Your task to perform on an android device: open app "Booking.com: Hotels and more" (install if not already installed), go to login, and select forgot password Image 0: 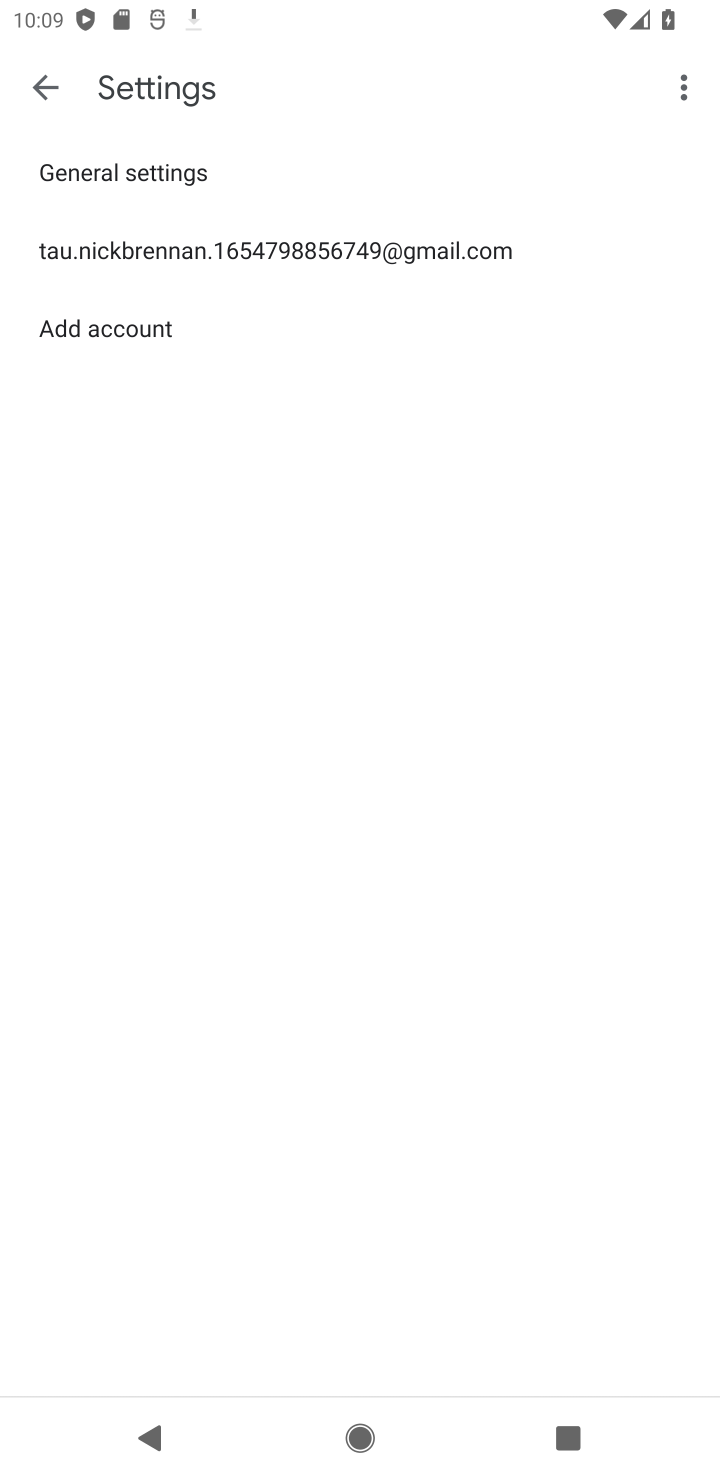
Step 0: press home button
Your task to perform on an android device: open app "Booking.com: Hotels and more" (install if not already installed), go to login, and select forgot password Image 1: 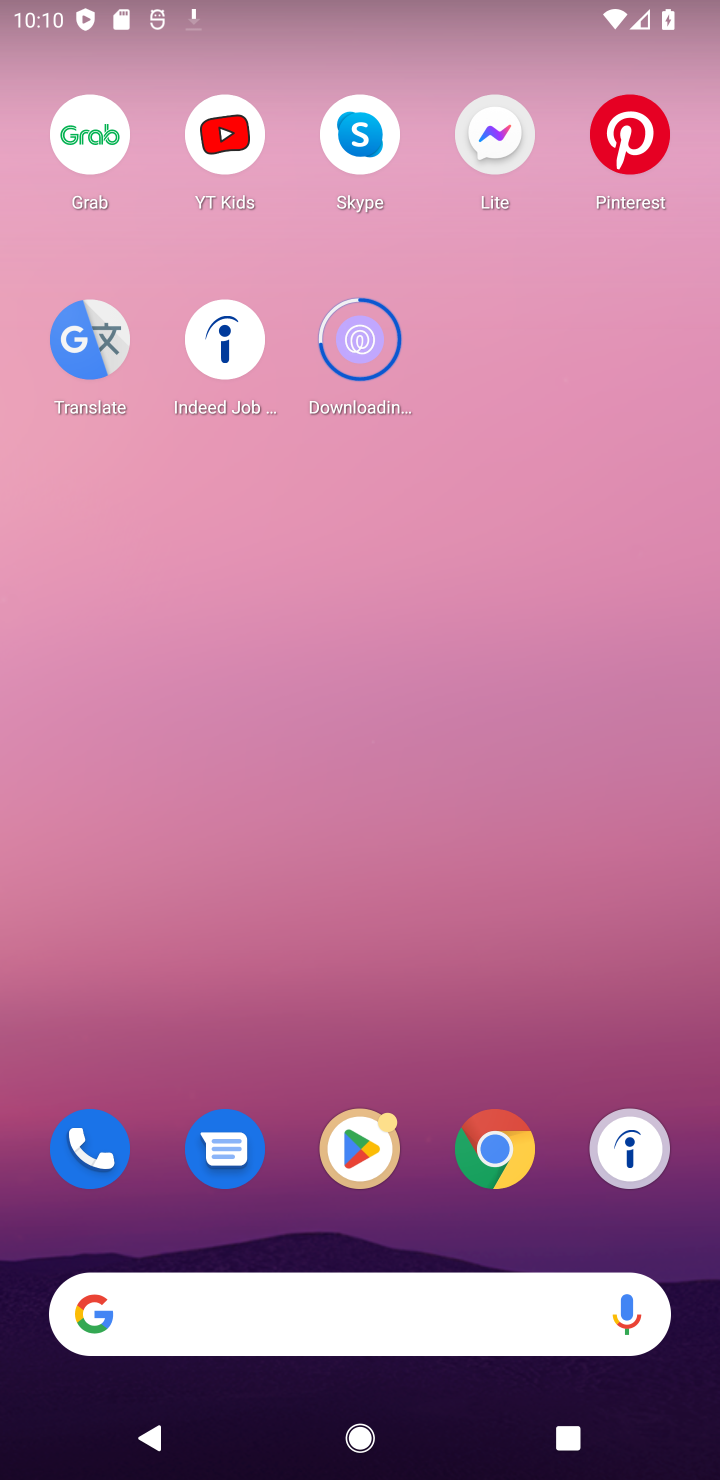
Step 1: click (365, 1166)
Your task to perform on an android device: open app "Booking.com: Hotels and more" (install if not already installed), go to login, and select forgot password Image 2: 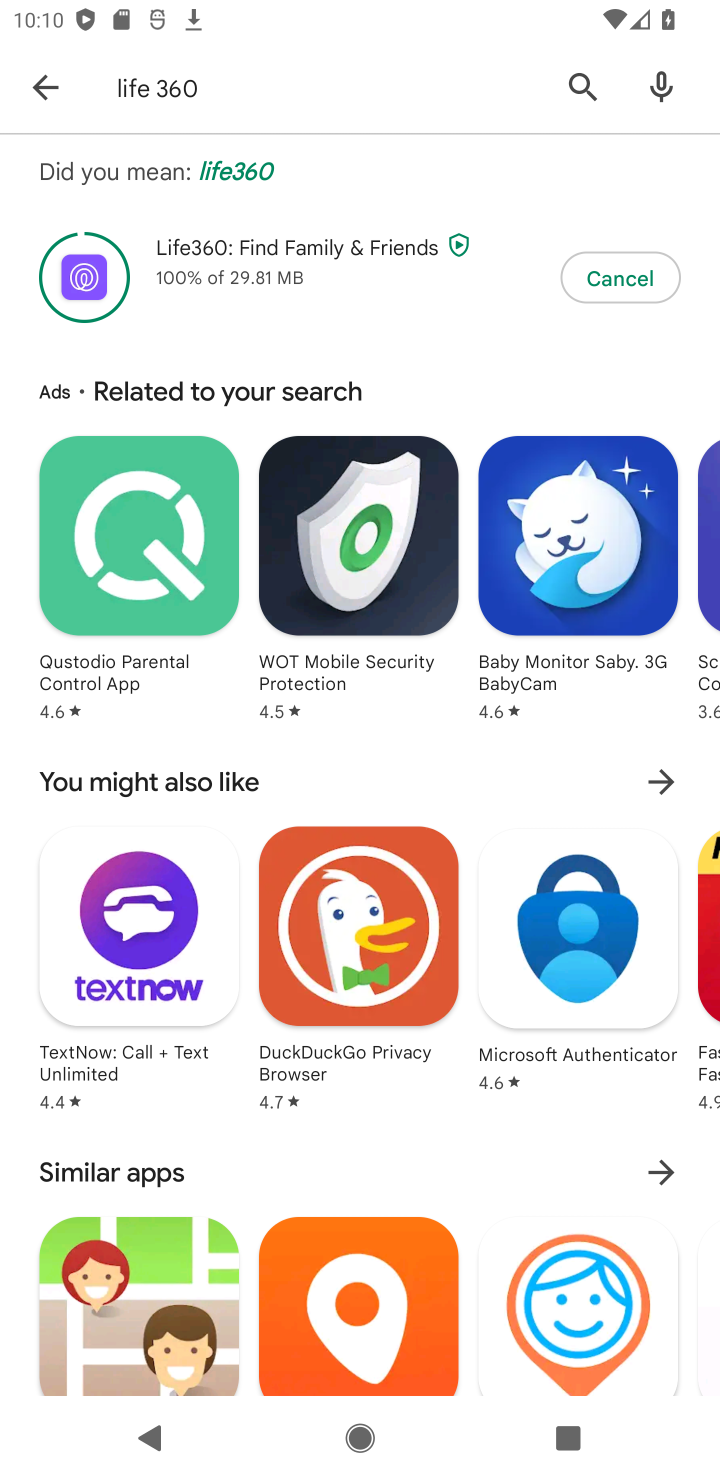
Step 2: click (566, 86)
Your task to perform on an android device: open app "Booking.com: Hotels and more" (install if not already installed), go to login, and select forgot password Image 3: 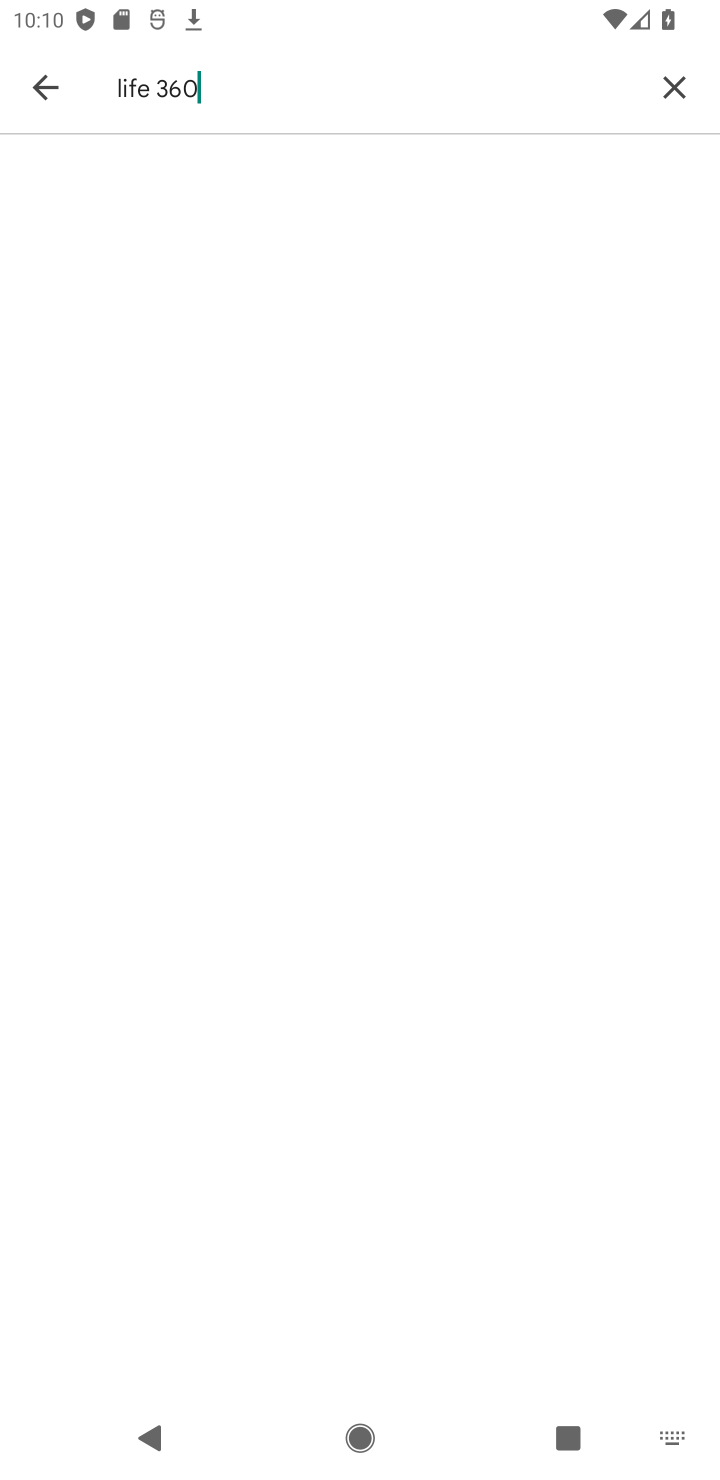
Step 3: click (664, 90)
Your task to perform on an android device: open app "Booking.com: Hotels and more" (install if not already installed), go to login, and select forgot password Image 4: 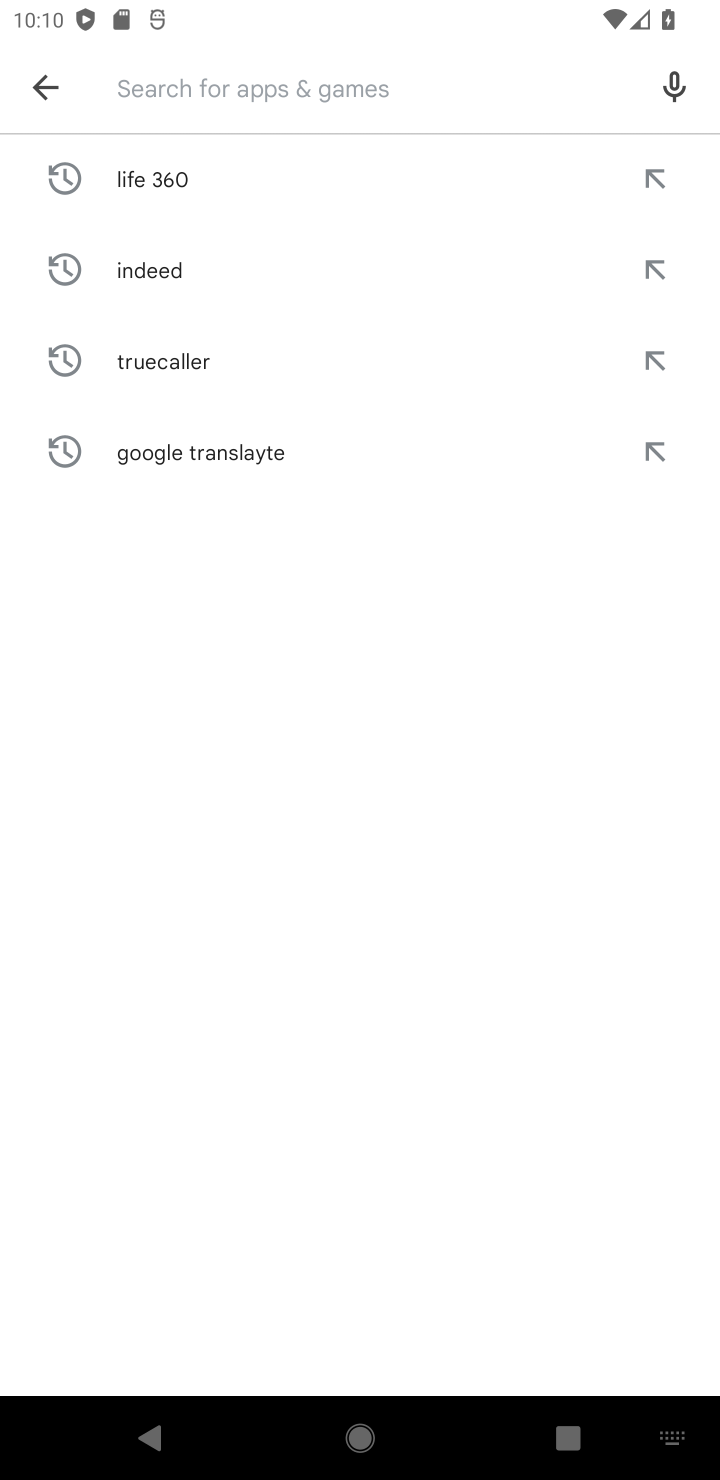
Step 4: click (664, 90)
Your task to perform on an android device: open app "Booking.com: Hotels and more" (install if not already installed), go to login, and select forgot password Image 5: 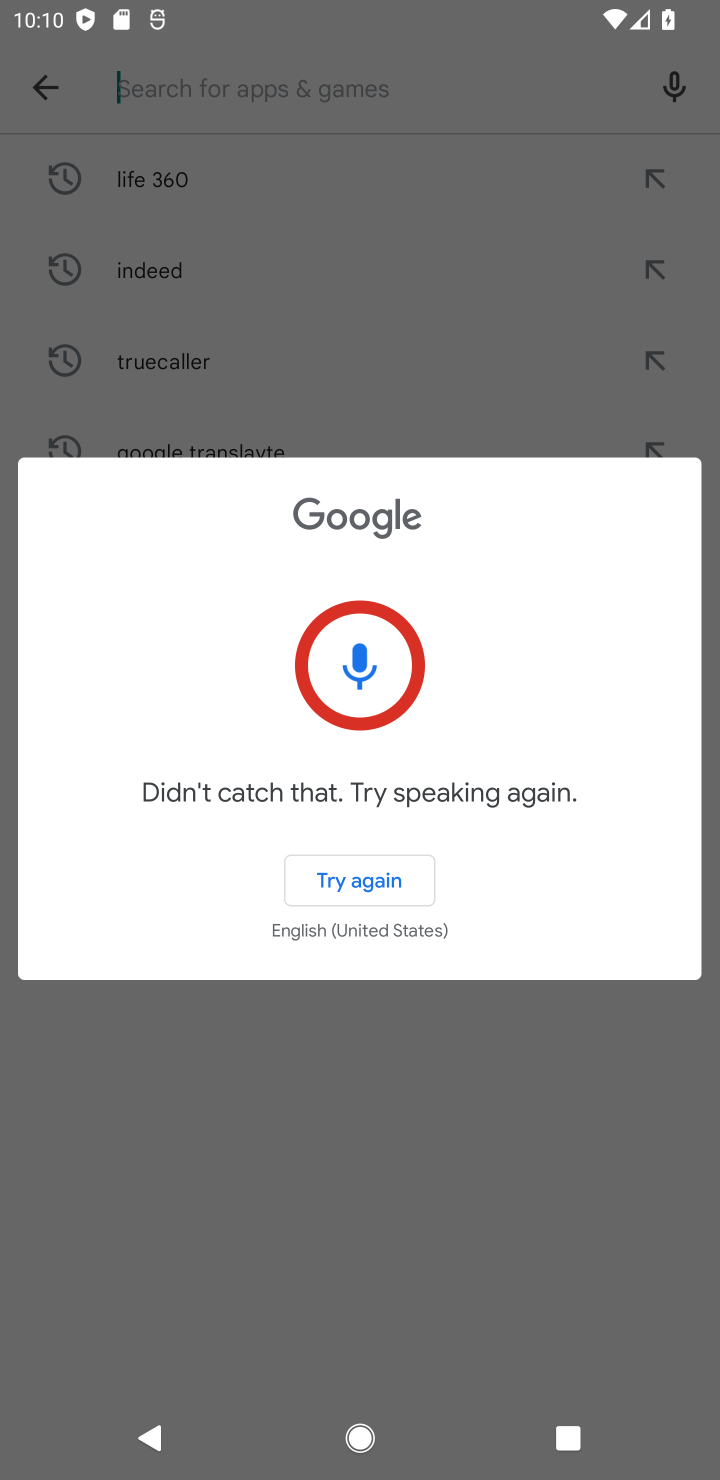
Step 5: type "booking"
Your task to perform on an android device: open app "Booking.com: Hotels and more" (install if not already installed), go to login, and select forgot password Image 6: 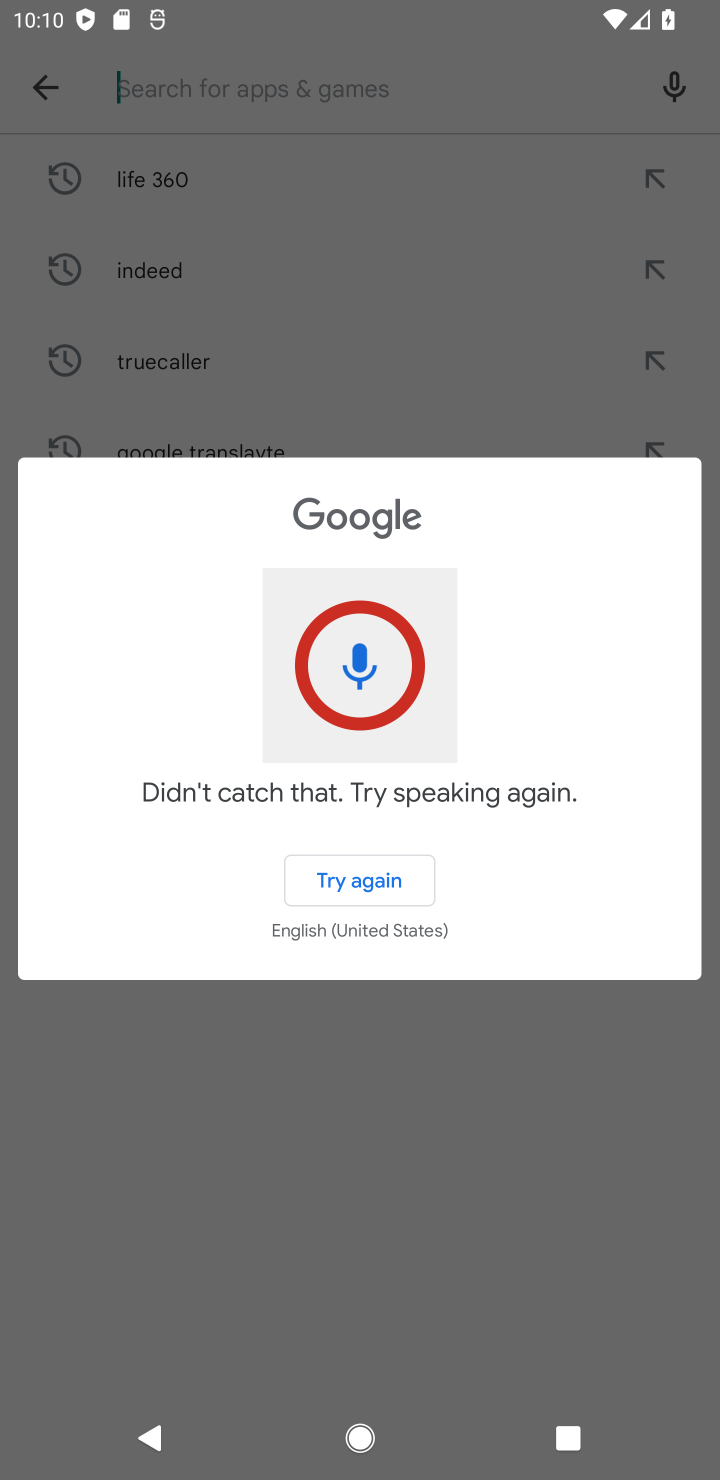
Step 6: click (345, 225)
Your task to perform on an android device: open app "Booking.com: Hotels and more" (install if not already installed), go to login, and select forgot password Image 7: 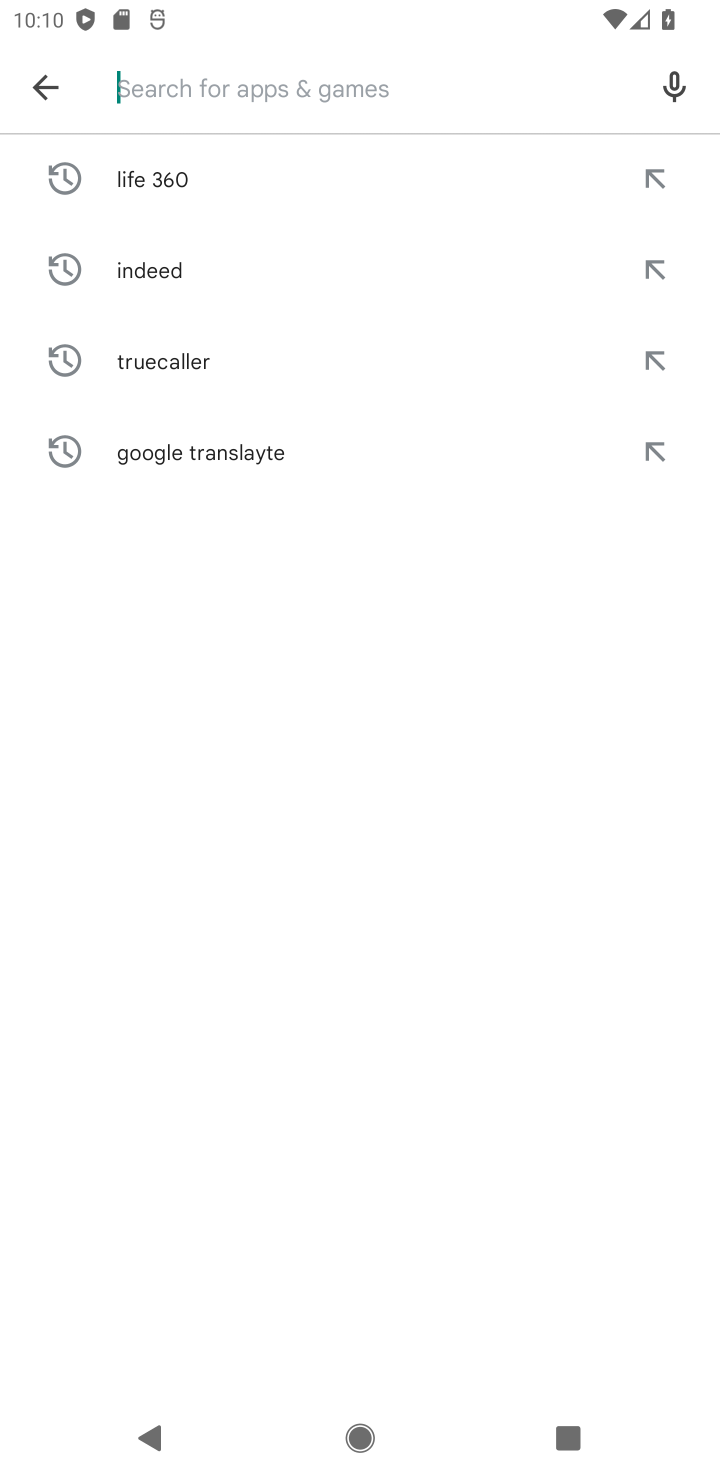
Step 7: click (379, 118)
Your task to perform on an android device: open app "Booking.com: Hotels and more" (install if not already installed), go to login, and select forgot password Image 8: 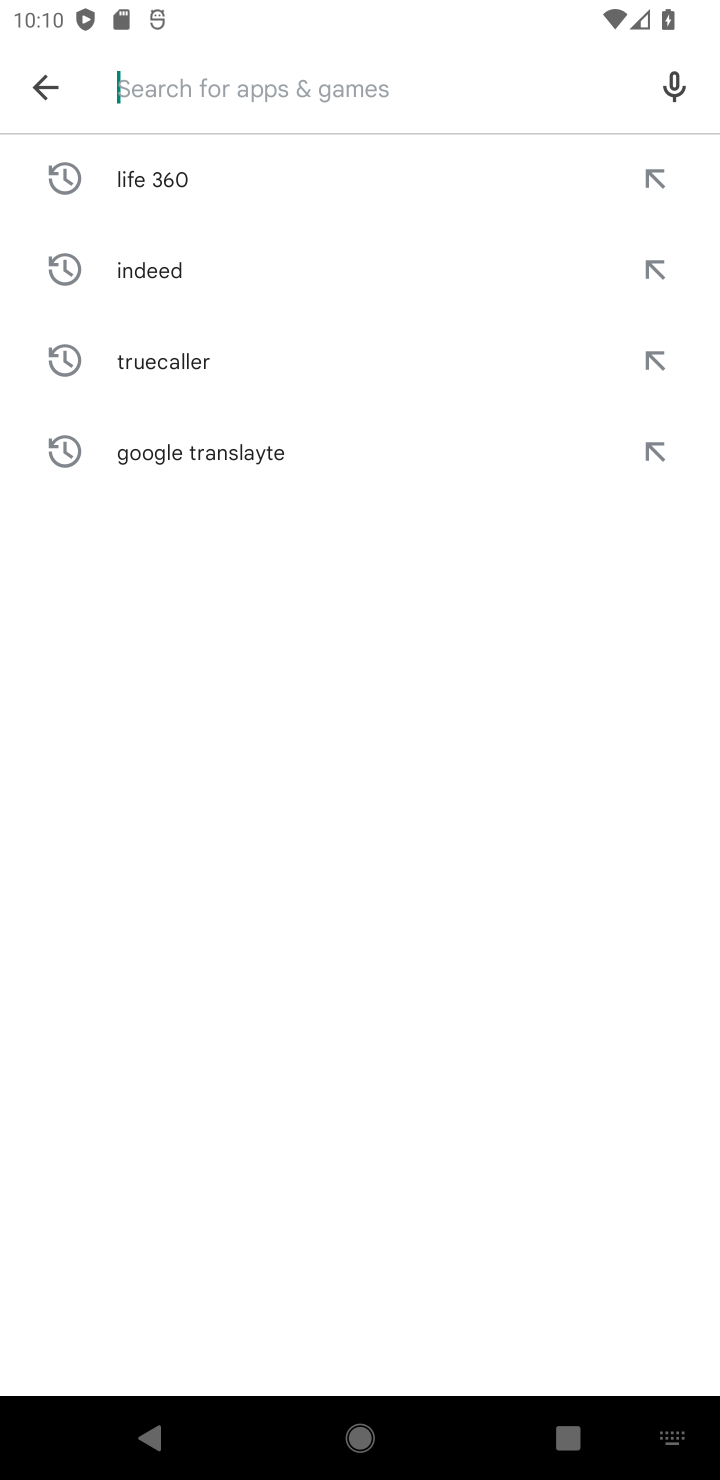
Step 8: type "booking"
Your task to perform on an android device: open app "Booking.com: Hotels and more" (install if not already installed), go to login, and select forgot password Image 9: 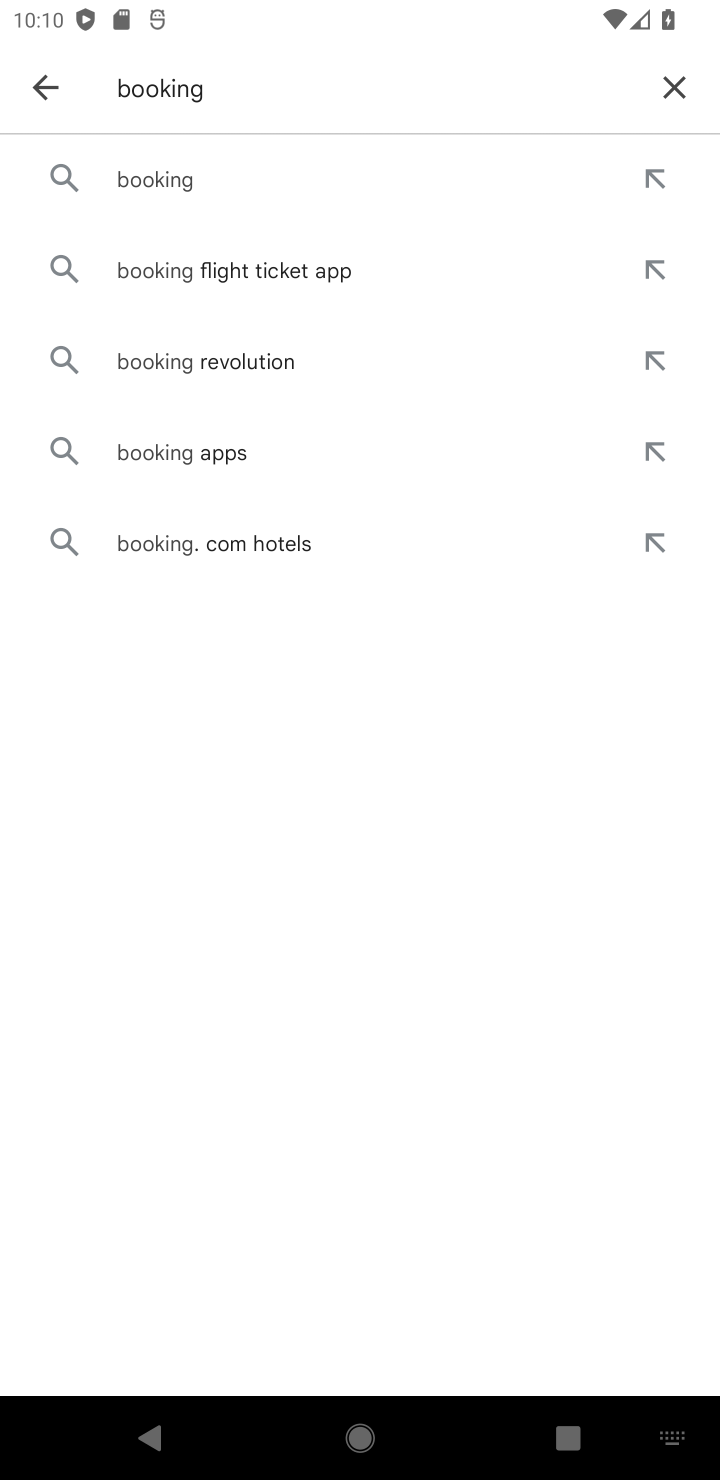
Step 9: click (230, 188)
Your task to perform on an android device: open app "Booking.com: Hotels and more" (install if not already installed), go to login, and select forgot password Image 10: 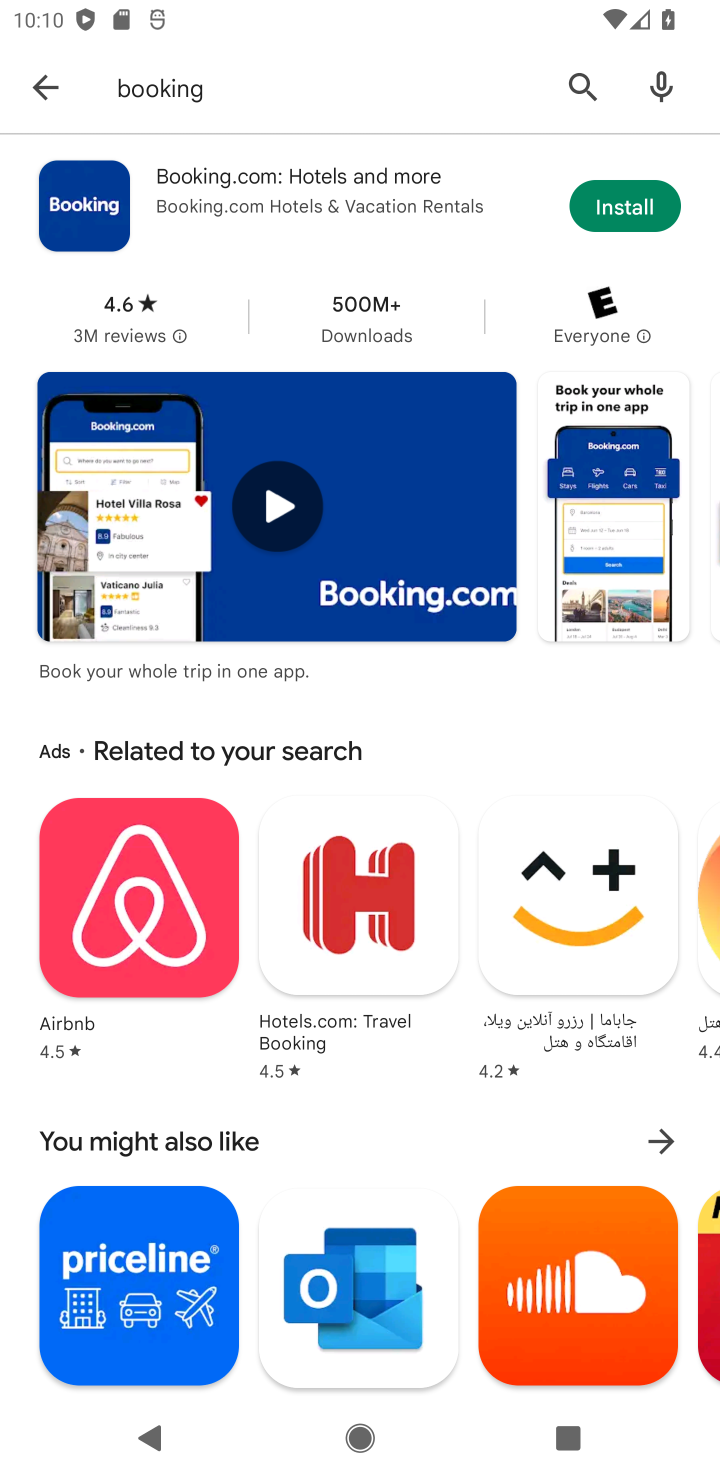
Step 10: click (650, 210)
Your task to perform on an android device: open app "Booking.com: Hotels and more" (install if not already installed), go to login, and select forgot password Image 11: 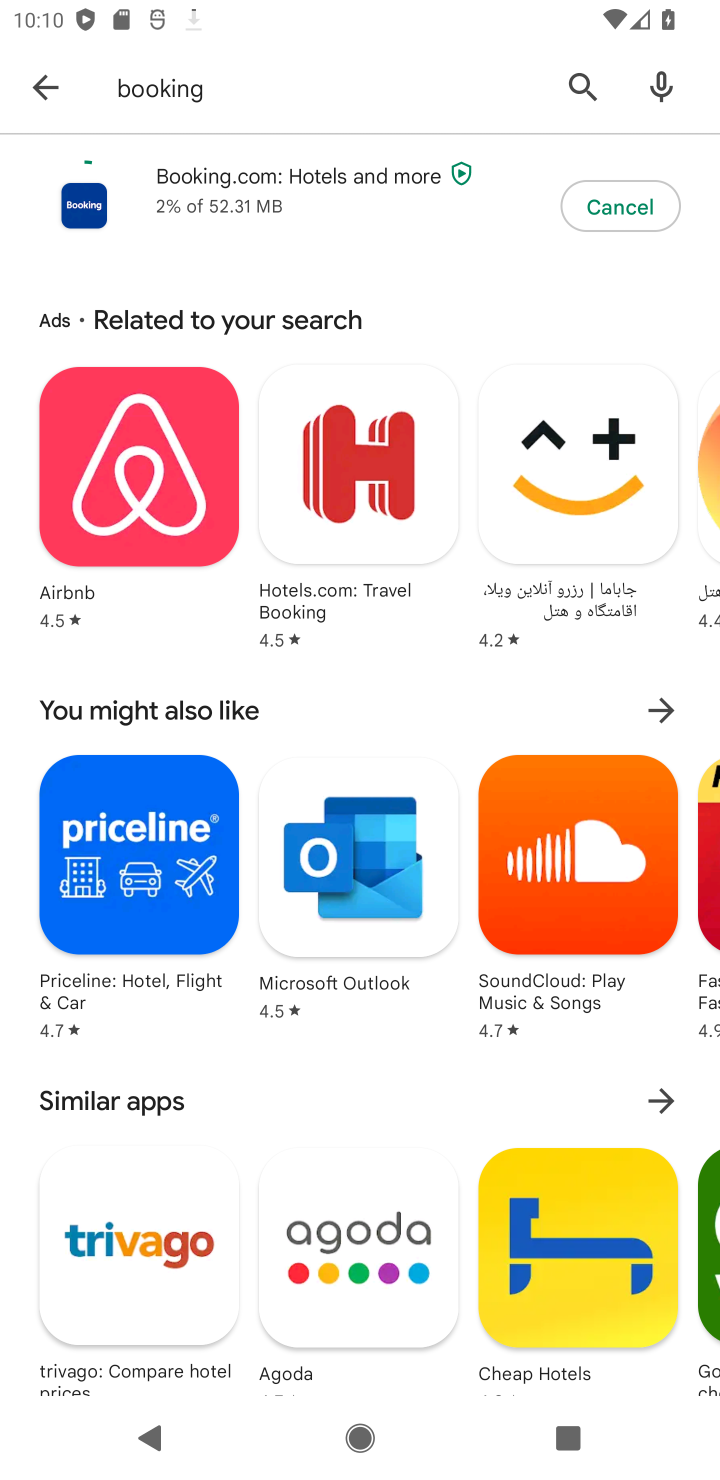
Step 11: task complete